Your task to perform on an android device: Go to Google Image 0: 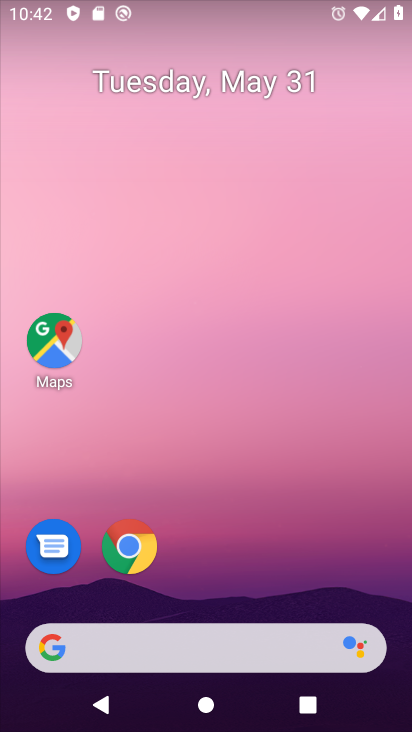
Step 0: drag from (143, 729) to (163, 62)
Your task to perform on an android device: Go to Google Image 1: 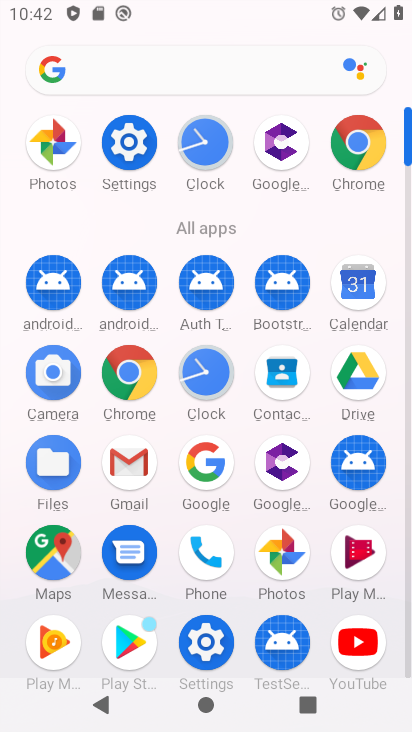
Step 1: click (204, 470)
Your task to perform on an android device: Go to Google Image 2: 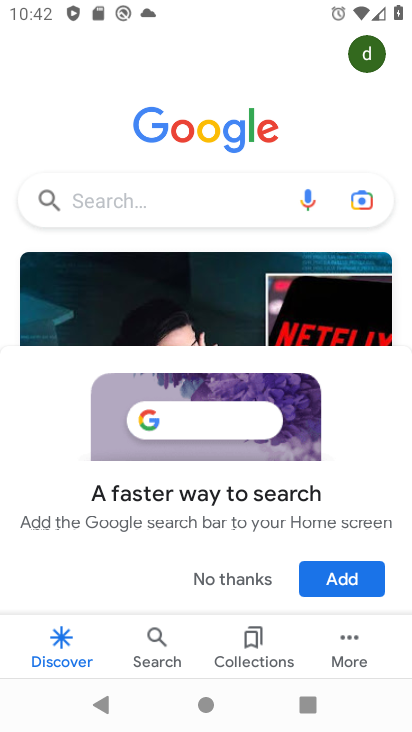
Step 2: task complete